Your task to perform on an android device: Open privacy settings Image 0: 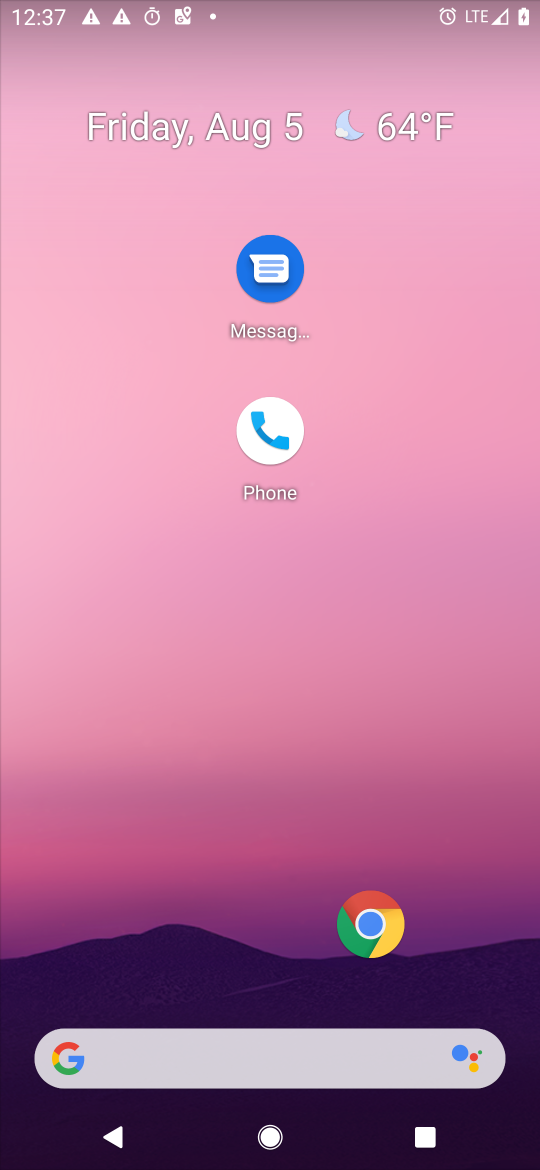
Step 0: drag from (243, 993) to (240, 281)
Your task to perform on an android device: Open privacy settings Image 1: 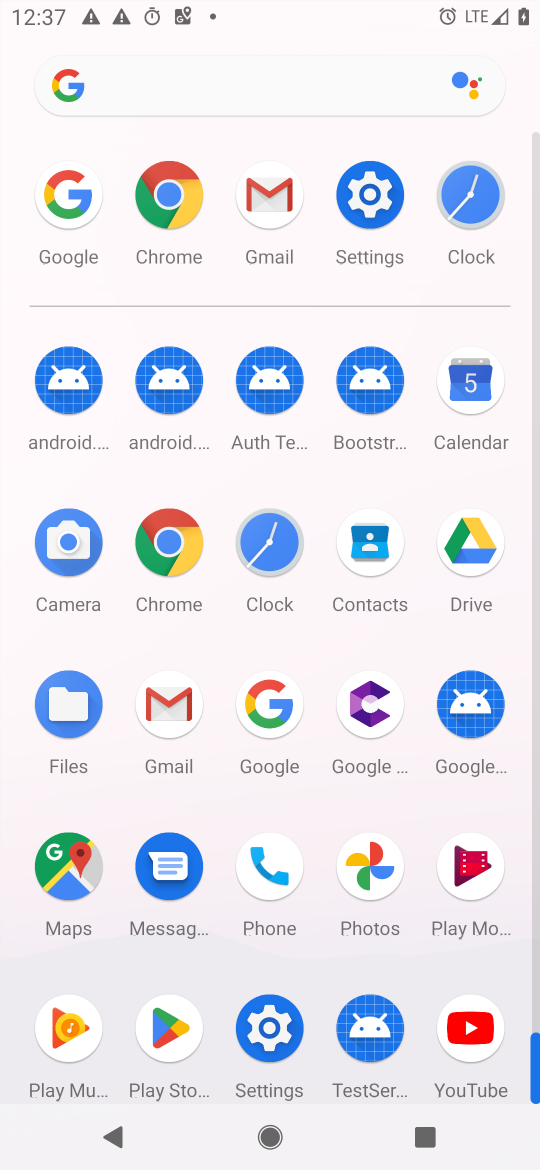
Step 1: click (273, 1065)
Your task to perform on an android device: Open privacy settings Image 2: 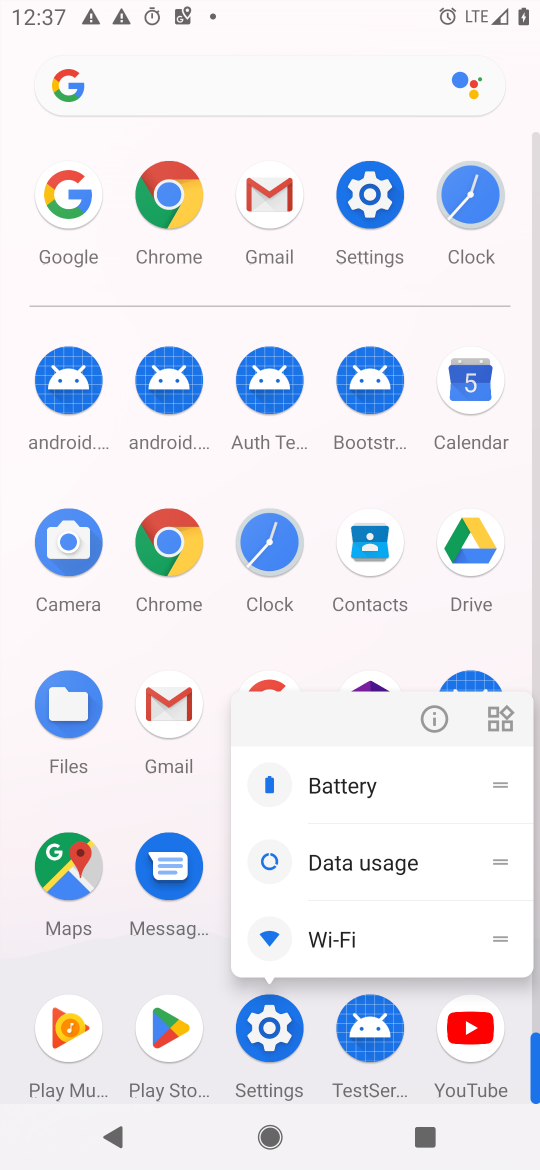
Step 2: click (444, 711)
Your task to perform on an android device: Open privacy settings Image 3: 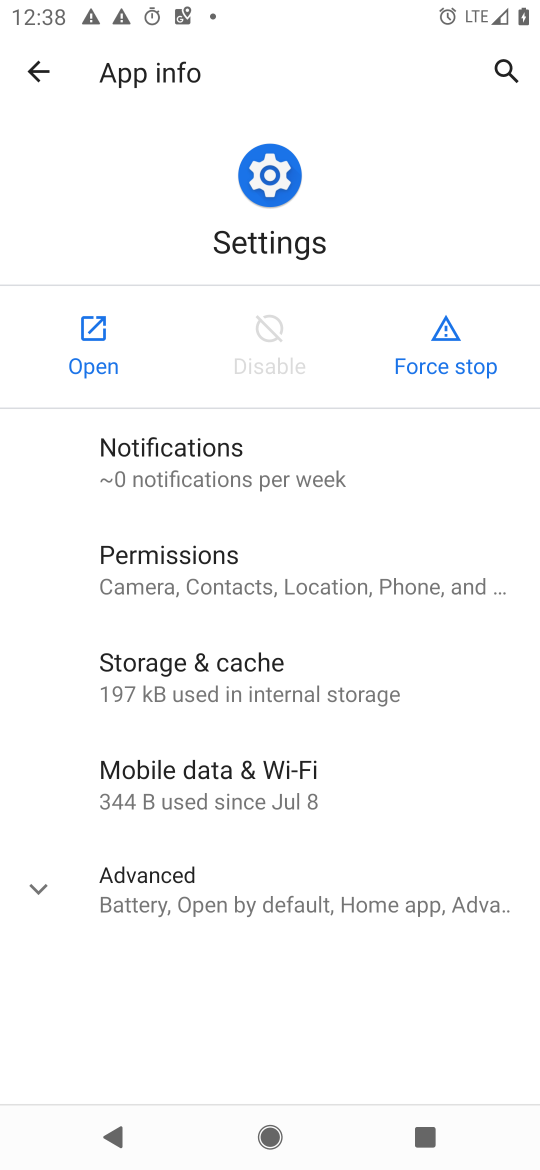
Step 3: click (58, 334)
Your task to perform on an android device: Open privacy settings Image 4: 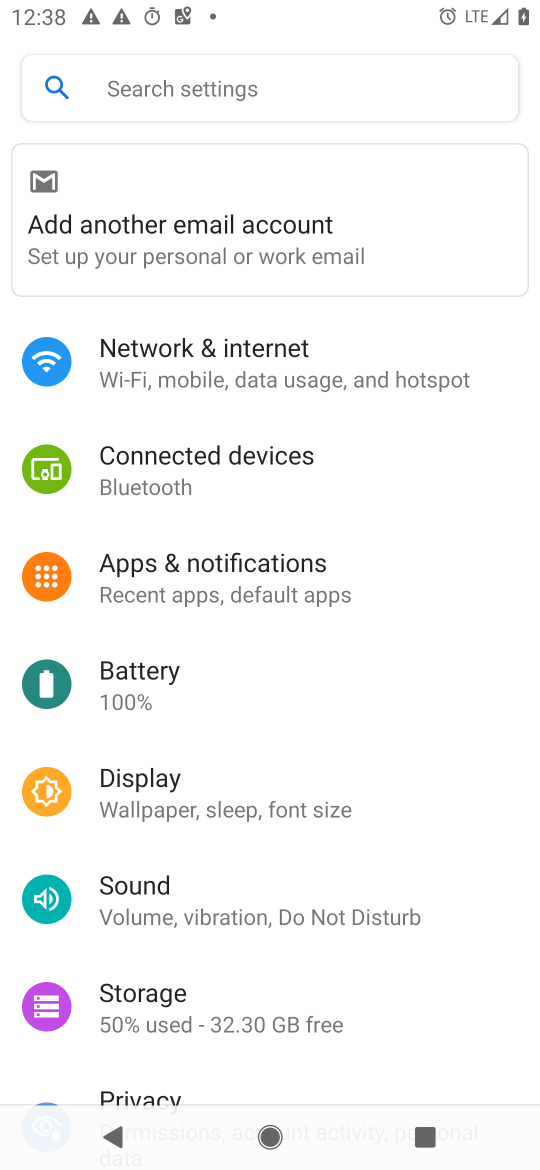
Step 4: click (147, 1095)
Your task to perform on an android device: Open privacy settings Image 5: 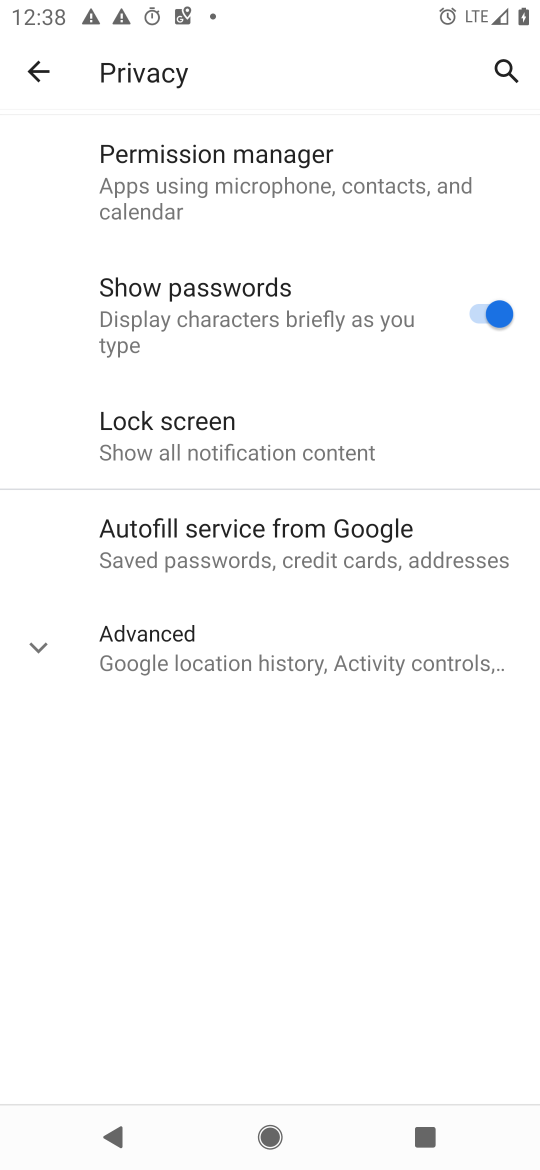
Step 5: task complete